Your task to perform on an android device: See recent photos Image 0: 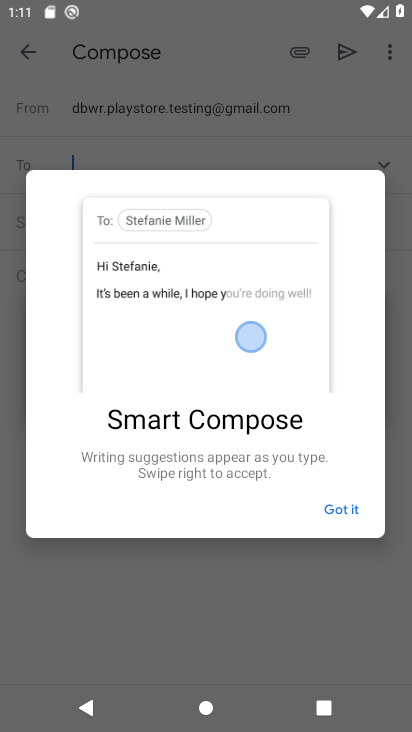
Step 0: press home button
Your task to perform on an android device: See recent photos Image 1: 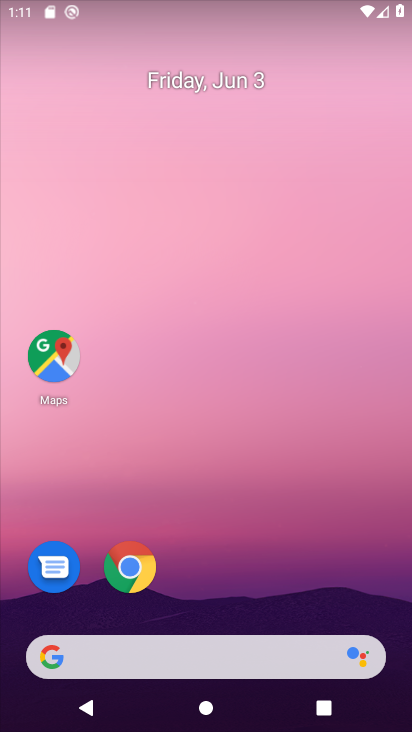
Step 1: drag from (187, 554) to (167, 259)
Your task to perform on an android device: See recent photos Image 2: 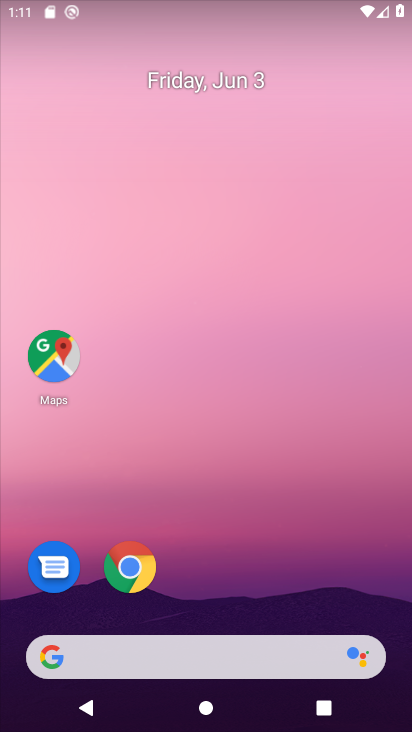
Step 2: drag from (170, 468) to (183, 215)
Your task to perform on an android device: See recent photos Image 3: 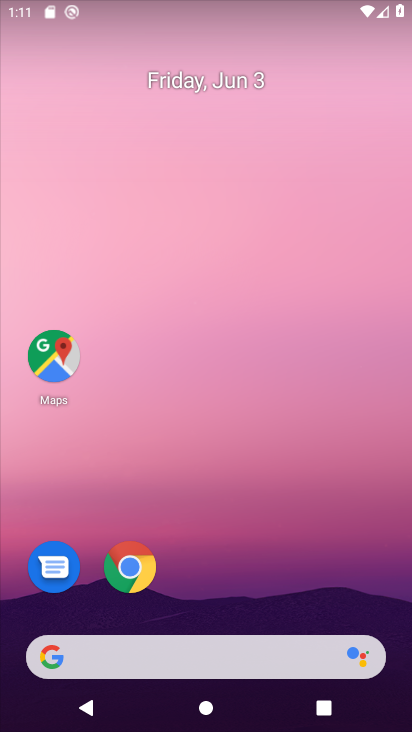
Step 3: drag from (197, 572) to (181, 48)
Your task to perform on an android device: See recent photos Image 4: 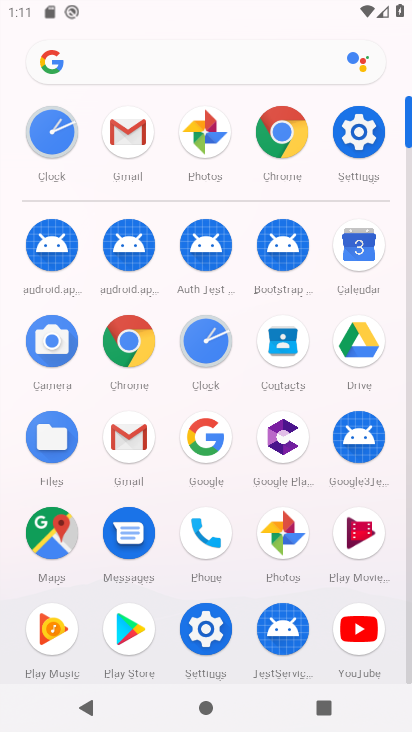
Step 4: click (205, 129)
Your task to perform on an android device: See recent photos Image 5: 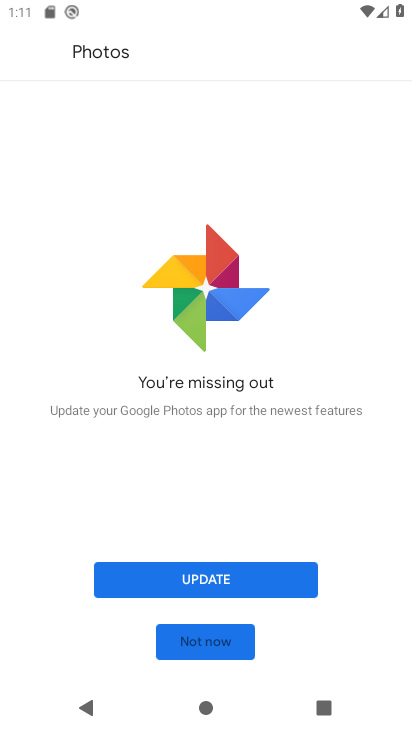
Step 5: click (197, 642)
Your task to perform on an android device: See recent photos Image 6: 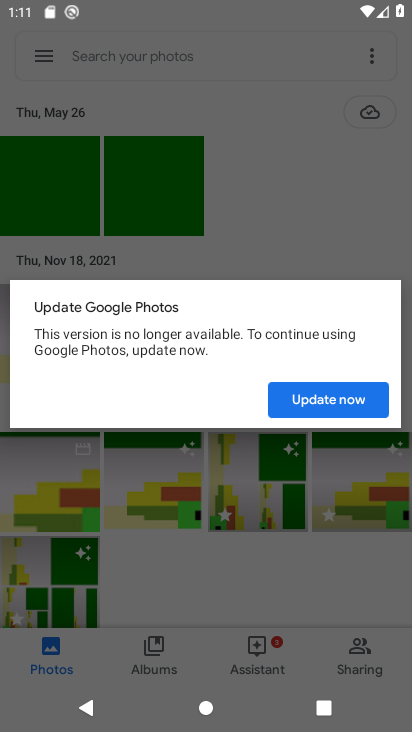
Step 6: click (328, 402)
Your task to perform on an android device: See recent photos Image 7: 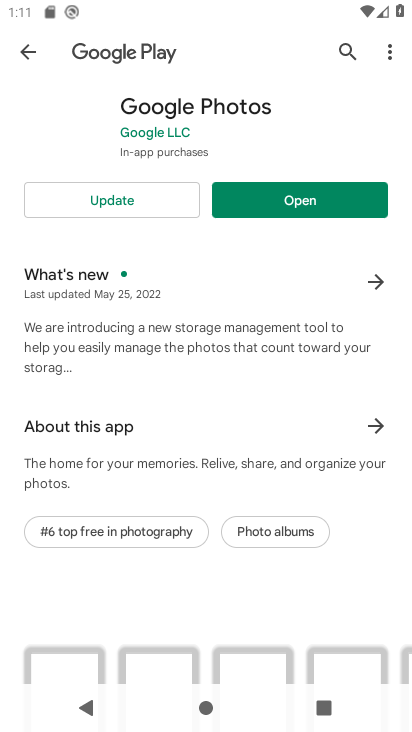
Step 7: press back button
Your task to perform on an android device: See recent photos Image 8: 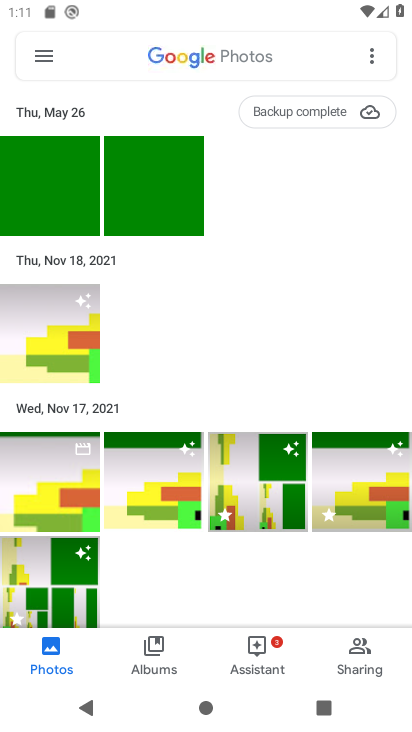
Step 8: click (18, 474)
Your task to perform on an android device: See recent photos Image 9: 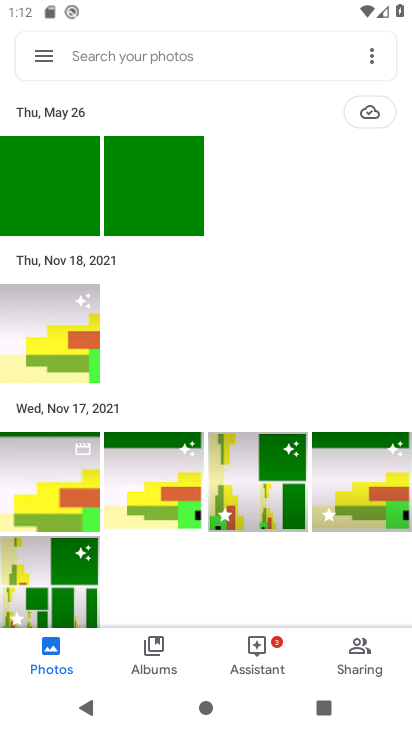
Step 9: task complete